Your task to perform on an android device: Open Google Chrome and click the shortcut for Amazon.com Image 0: 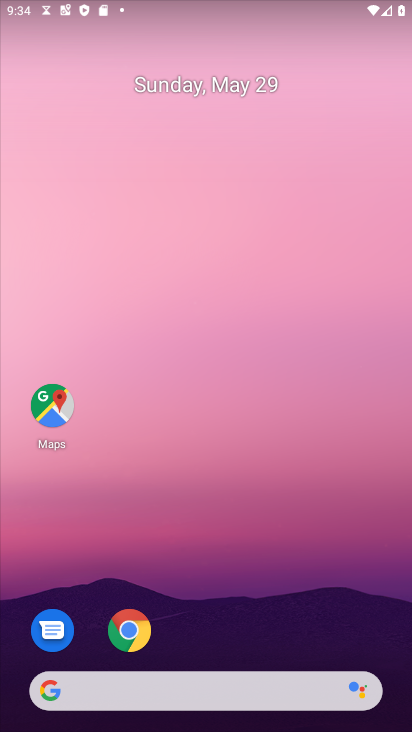
Step 0: click (133, 633)
Your task to perform on an android device: Open Google Chrome and click the shortcut for Amazon.com Image 1: 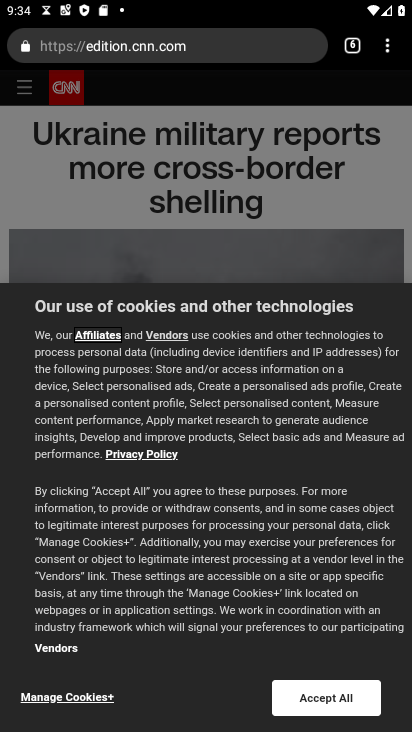
Step 1: click (346, 41)
Your task to perform on an android device: Open Google Chrome and click the shortcut for Amazon.com Image 2: 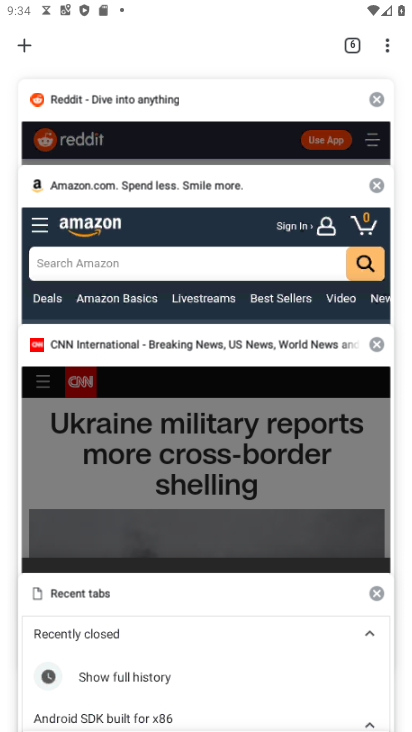
Step 2: click (130, 234)
Your task to perform on an android device: Open Google Chrome and click the shortcut for Amazon.com Image 3: 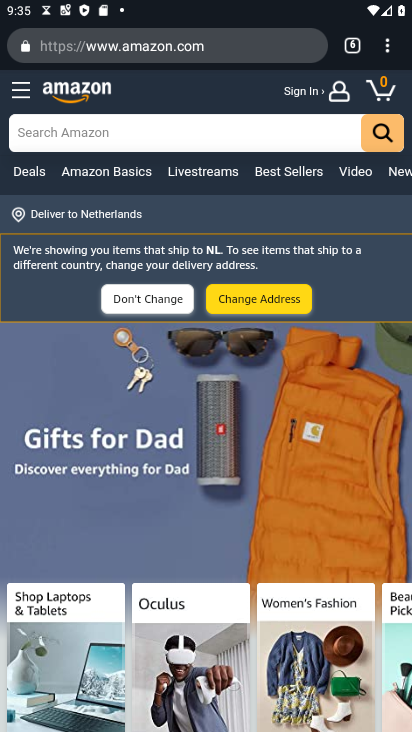
Step 3: task complete